Your task to perform on an android device: turn on sleep mode Image 0: 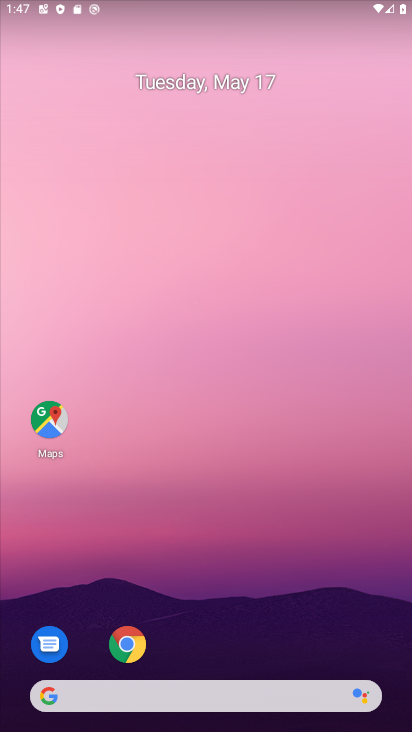
Step 0: click (323, 539)
Your task to perform on an android device: turn on sleep mode Image 1: 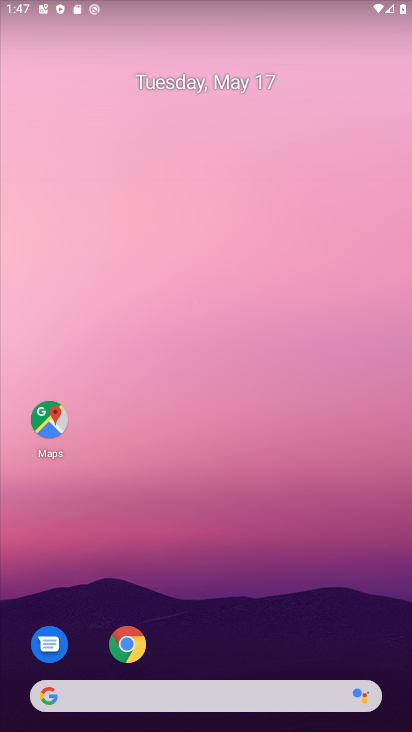
Step 1: drag from (218, 674) to (233, 56)
Your task to perform on an android device: turn on sleep mode Image 2: 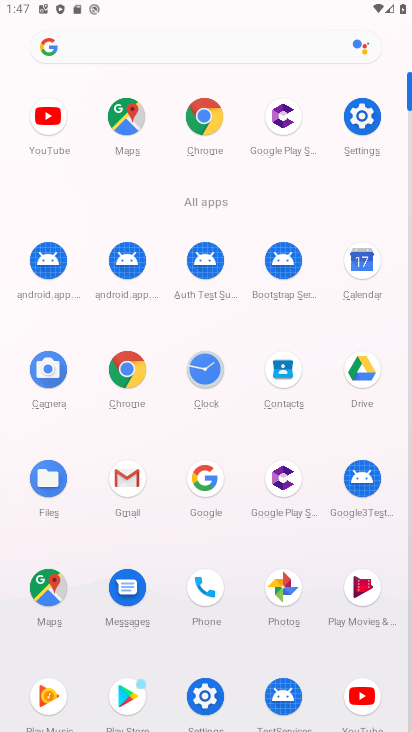
Step 2: click (360, 103)
Your task to perform on an android device: turn on sleep mode Image 3: 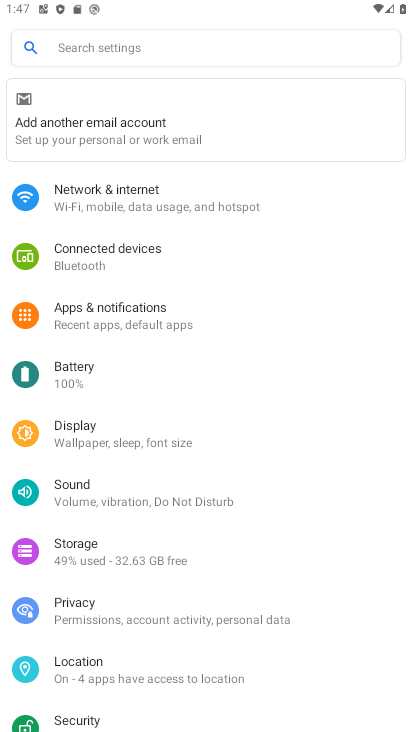
Step 3: click (123, 446)
Your task to perform on an android device: turn on sleep mode Image 4: 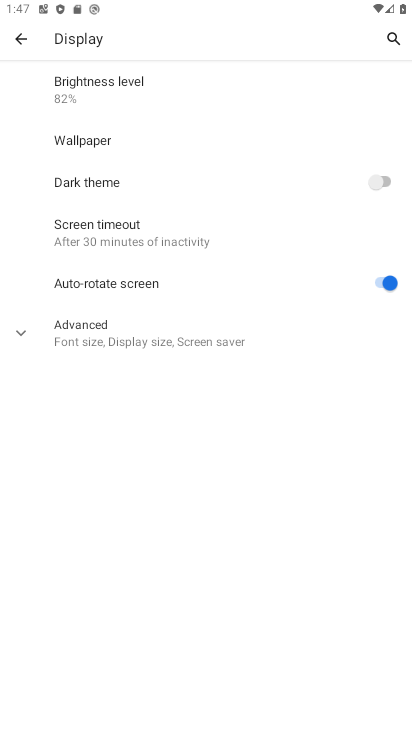
Step 4: click (144, 225)
Your task to perform on an android device: turn on sleep mode Image 5: 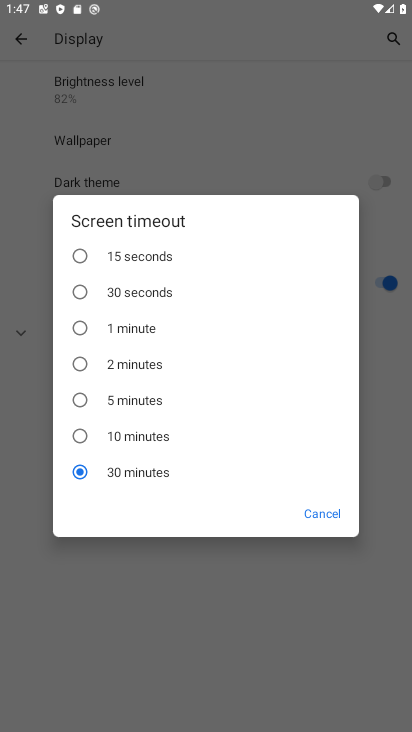
Step 5: task complete